Your task to perform on an android device: toggle improve location accuracy Image 0: 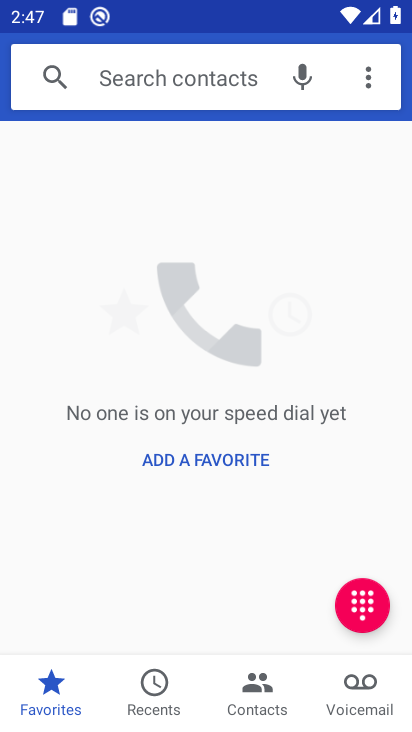
Step 0: press back button
Your task to perform on an android device: toggle improve location accuracy Image 1: 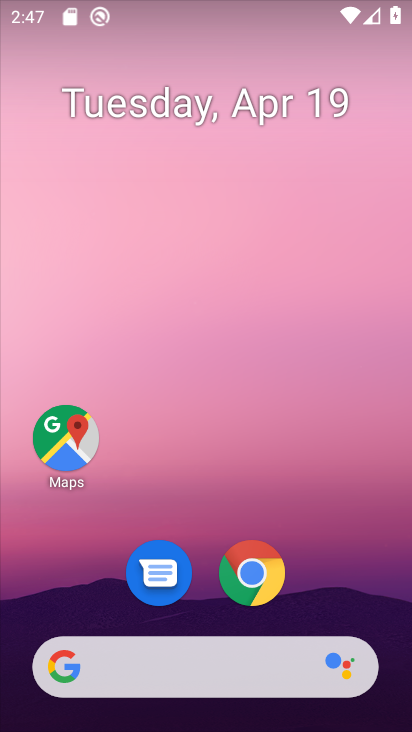
Step 1: drag from (165, 575) to (218, 212)
Your task to perform on an android device: toggle improve location accuracy Image 2: 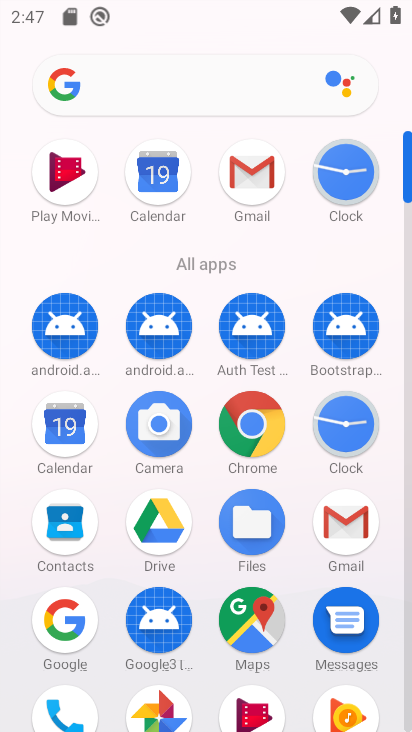
Step 2: drag from (164, 649) to (241, 276)
Your task to perform on an android device: toggle improve location accuracy Image 3: 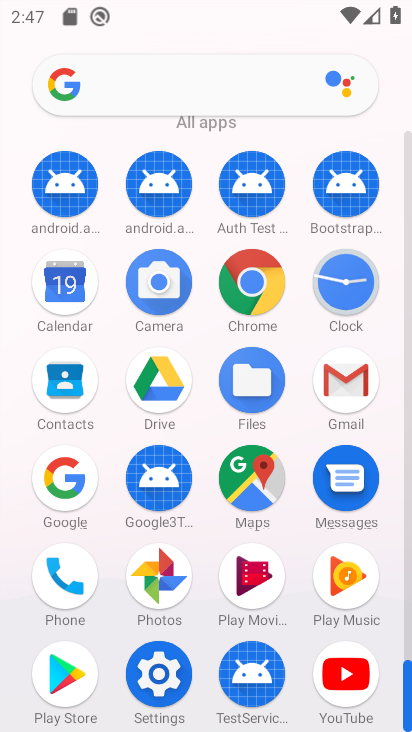
Step 3: click (167, 682)
Your task to perform on an android device: toggle improve location accuracy Image 4: 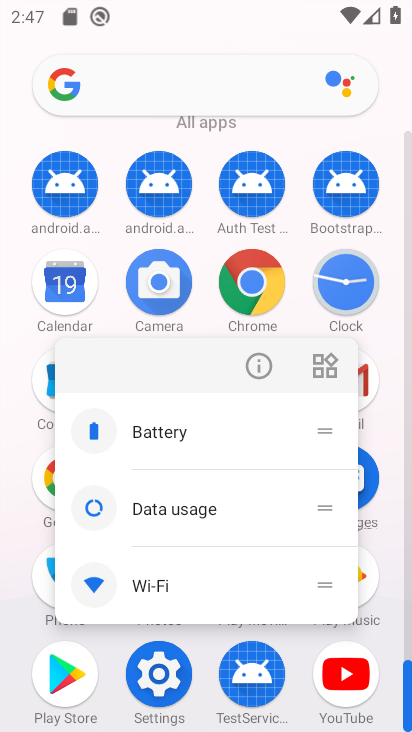
Step 4: click (163, 675)
Your task to perform on an android device: toggle improve location accuracy Image 5: 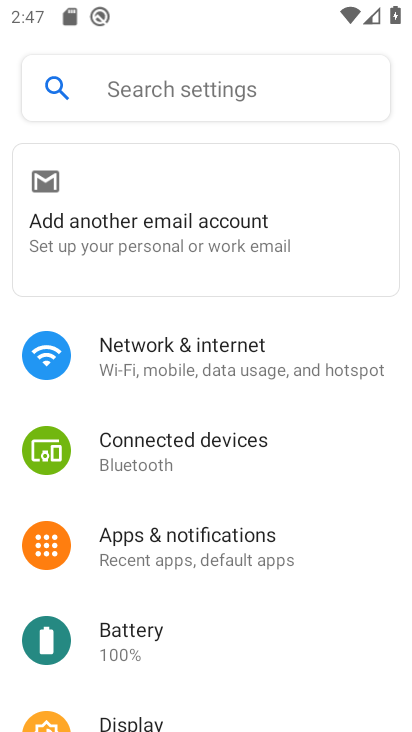
Step 5: drag from (104, 699) to (213, 224)
Your task to perform on an android device: toggle improve location accuracy Image 6: 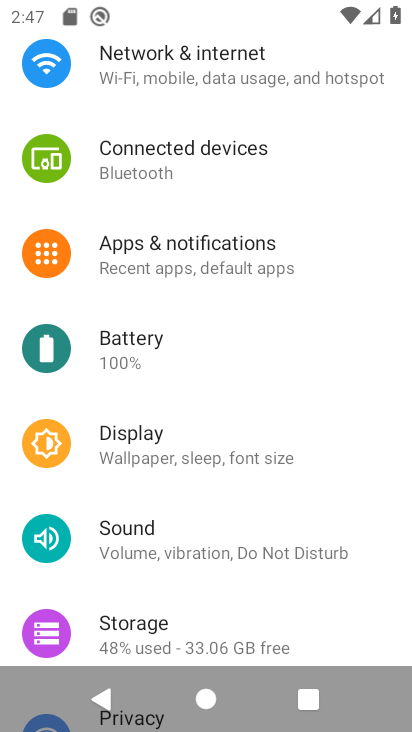
Step 6: drag from (164, 587) to (229, 246)
Your task to perform on an android device: toggle improve location accuracy Image 7: 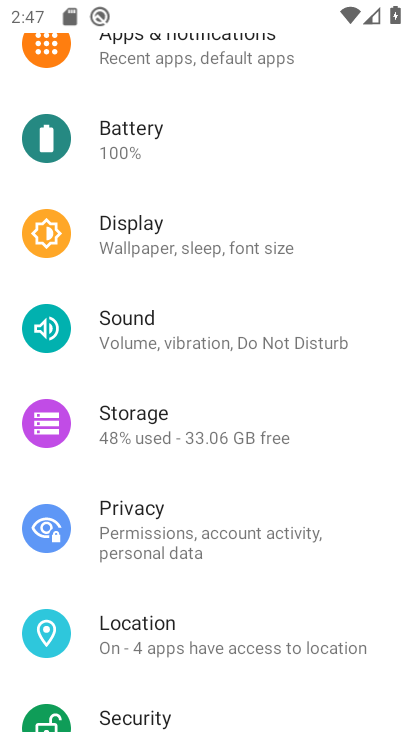
Step 7: click (118, 641)
Your task to perform on an android device: toggle improve location accuracy Image 8: 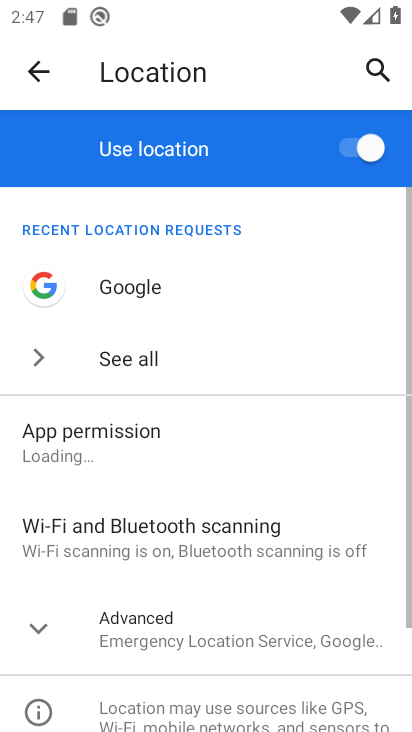
Step 8: drag from (239, 683) to (311, 406)
Your task to perform on an android device: toggle improve location accuracy Image 9: 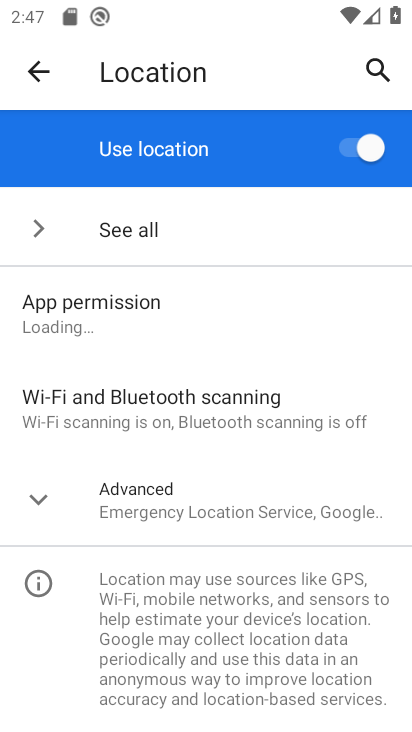
Step 9: click (194, 484)
Your task to perform on an android device: toggle improve location accuracy Image 10: 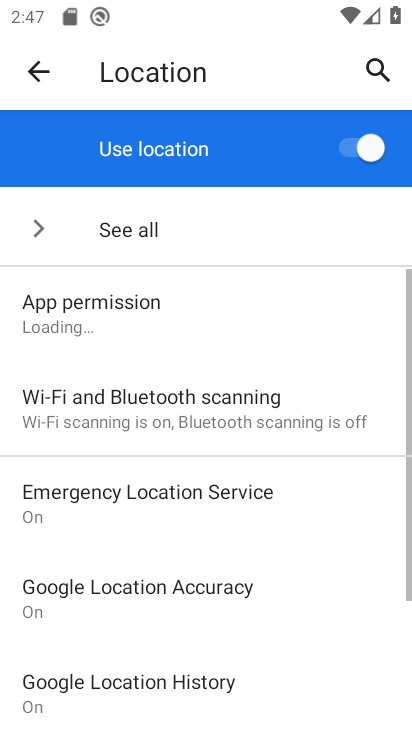
Step 10: drag from (194, 578) to (249, 358)
Your task to perform on an android device: toggle improve location accuracy Image 11: 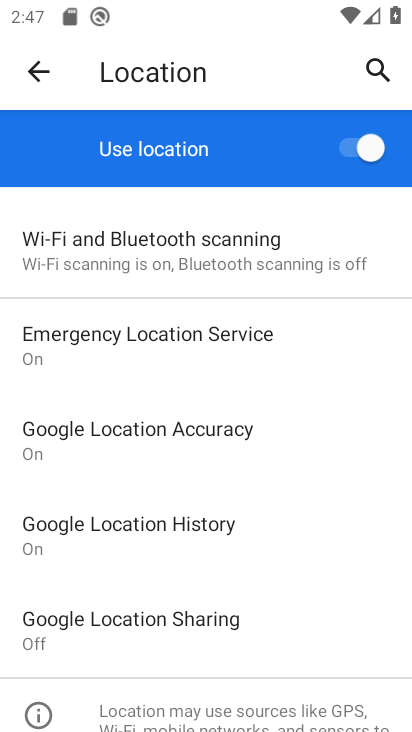
Step 11: click (208, 439)
Your task to perform on an android device: toggle improve location accuracy Image 12: 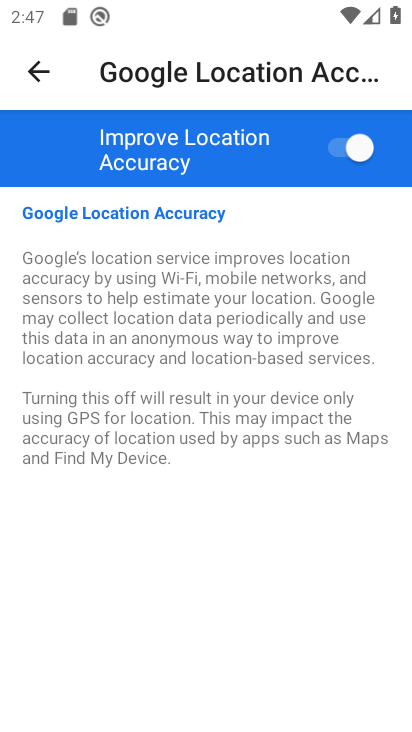
Step 12: click (331, 144)
Your task to perform on an android device: toggle improve location accuracy Image 13: 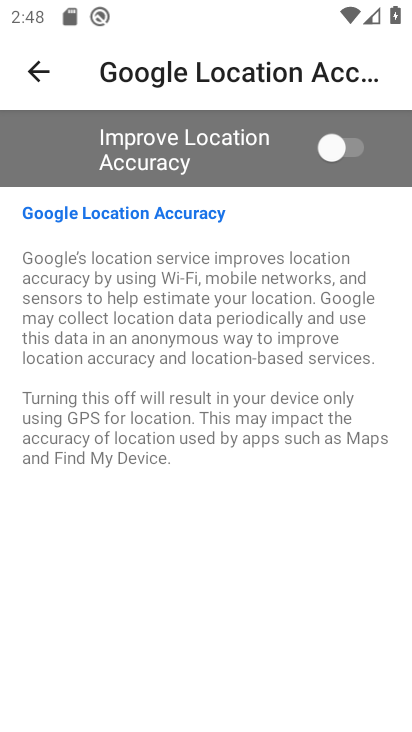
Step 13: task complete